Your task to perform on an android device: empty trash in google photos Image 0: 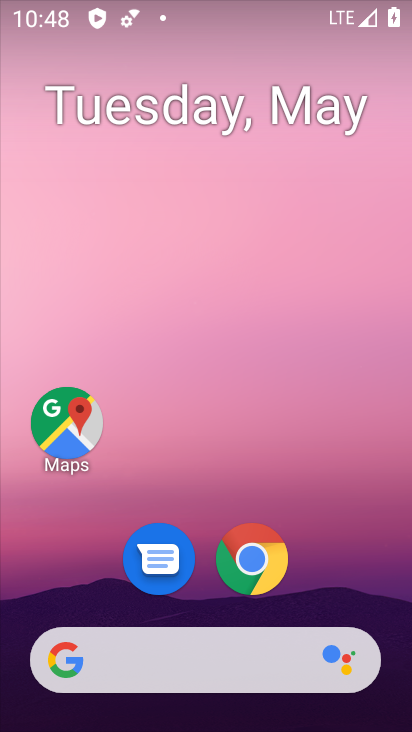
Step 0: drag from (321, 539) to (318, 222)
Your task to perform on an android device: empty trash in google photos Image 1: 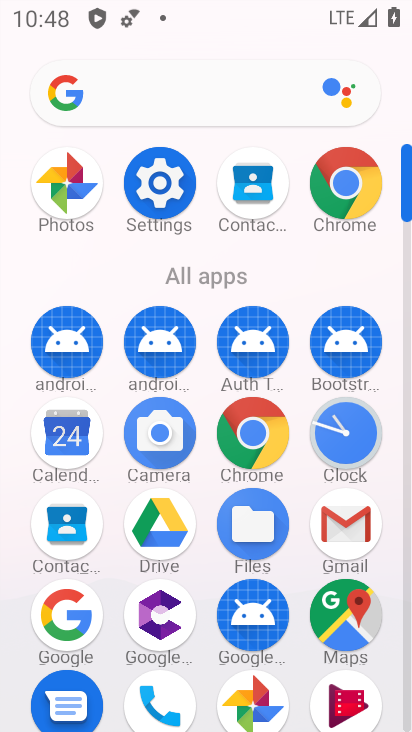
Step 1: click (269, 685)
Your task to perform on an android device: empty trash in google photos Image 2: 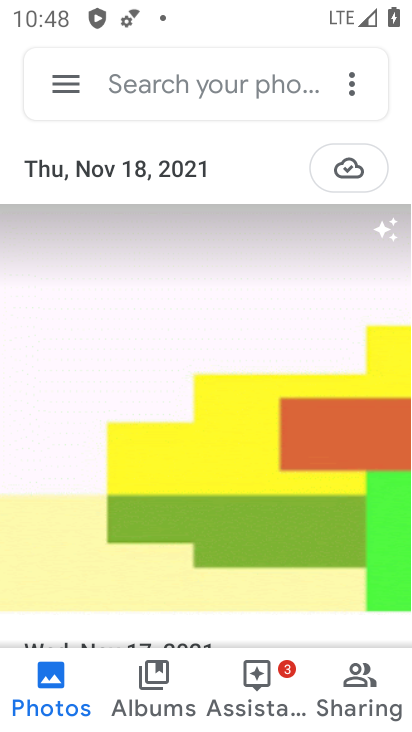
Step 2: click (57, 82)
Your task to perform on an android device: empty trash in google photos Image 3: 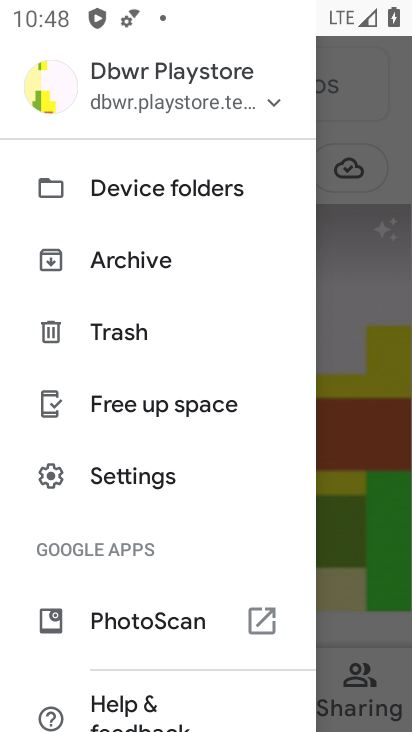
Step 3: click (134, 330)
Your task to perform on an android device: empty trash in google photos Image 4: 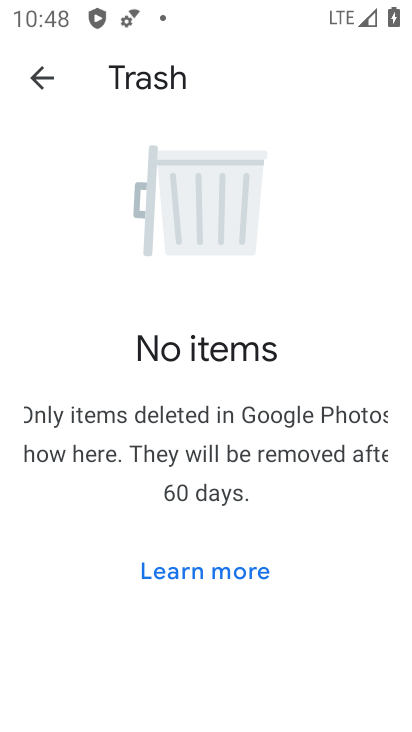
Step 4: task complete